Your task to perform on an android device: Go to internet settings Image 0: 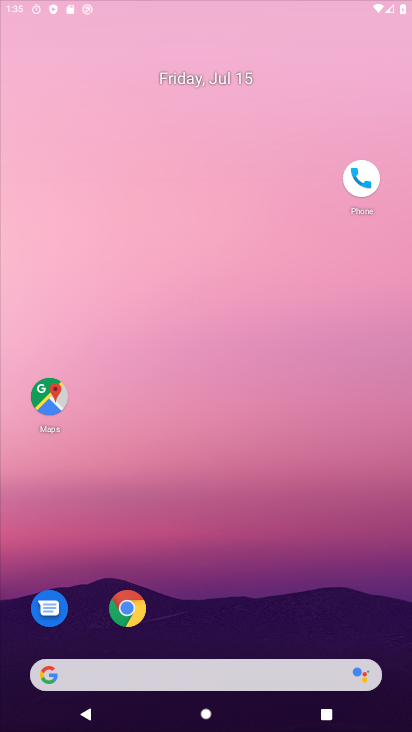
Step 0: drag from (176, 654) to (210, 261)
Your task to perform on an android device: Go to internet settings Image 1: 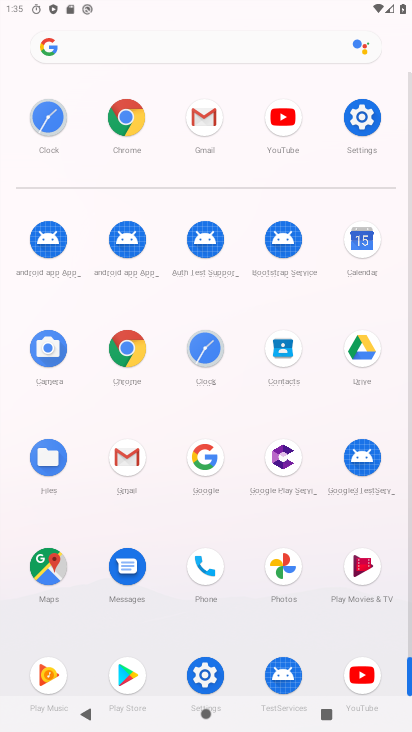
Step 1: click (201, 674)
Your task to perform on an android device: Go to internet settings Image 2: 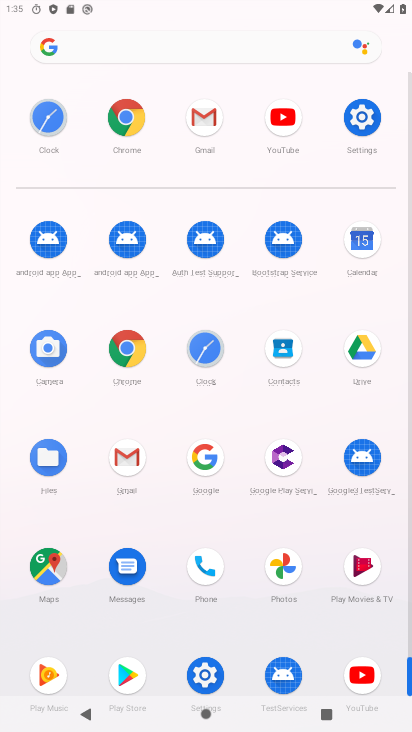
Step 2: click (201, 674)
Your task to perform on an android device: Go to internet settings Image 3: 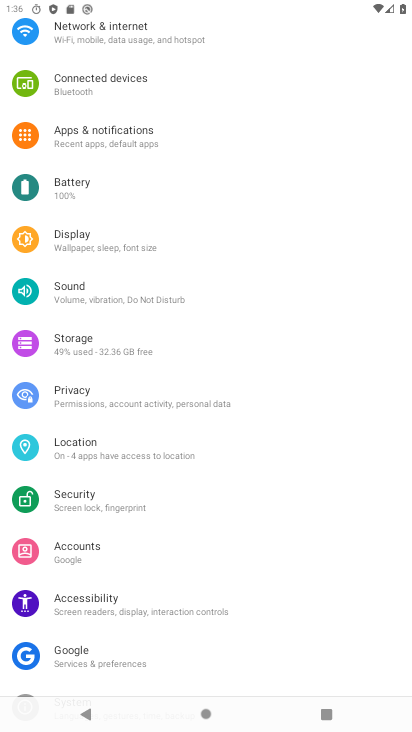
Step 3: click (118, 41)
Your task to perform on an android device: Go to internet settings Image 4: 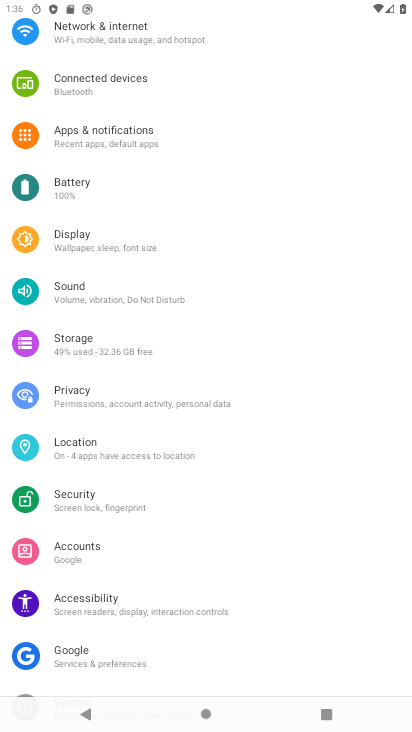
Step 4: click (118, 41)
Your task to perform on an android device: Go to internet settings Image 5: 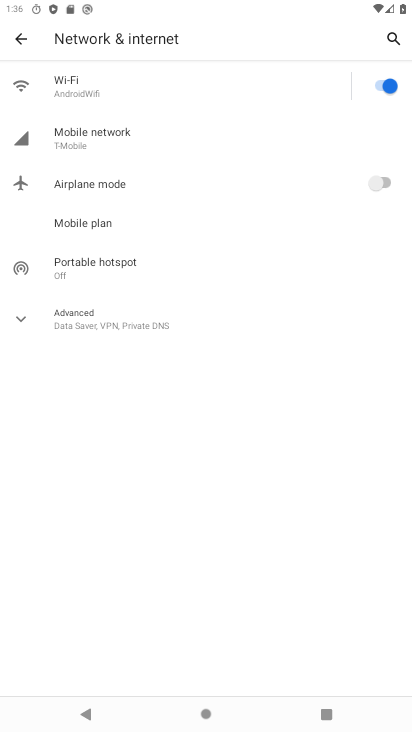
Step 5: click (220, 143)
Your task to perform on an android device: Go to internet settings Image 6: 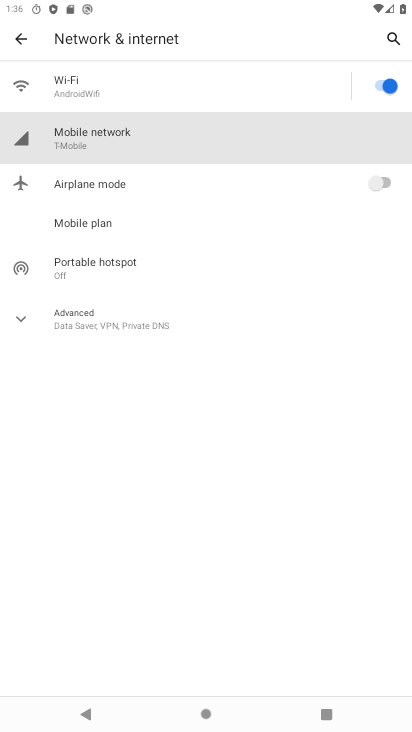
Step 6: task complete